Your task to perform on an android device: Go to notification settings Image 0: 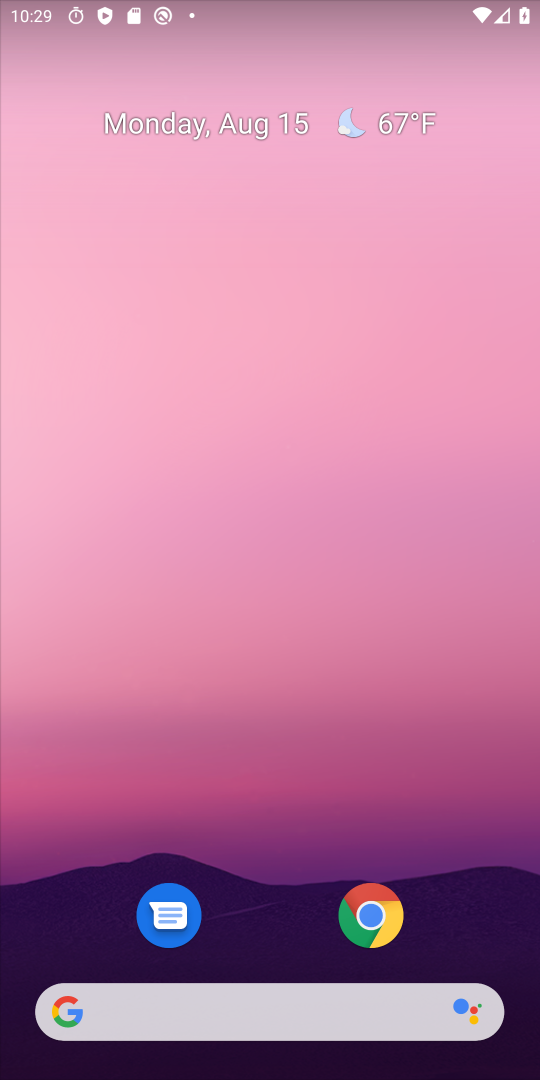
Step 0: drag from (489, 928) to (309, 155)
Your task to perform on an android device: Go to notification settings Image 1: 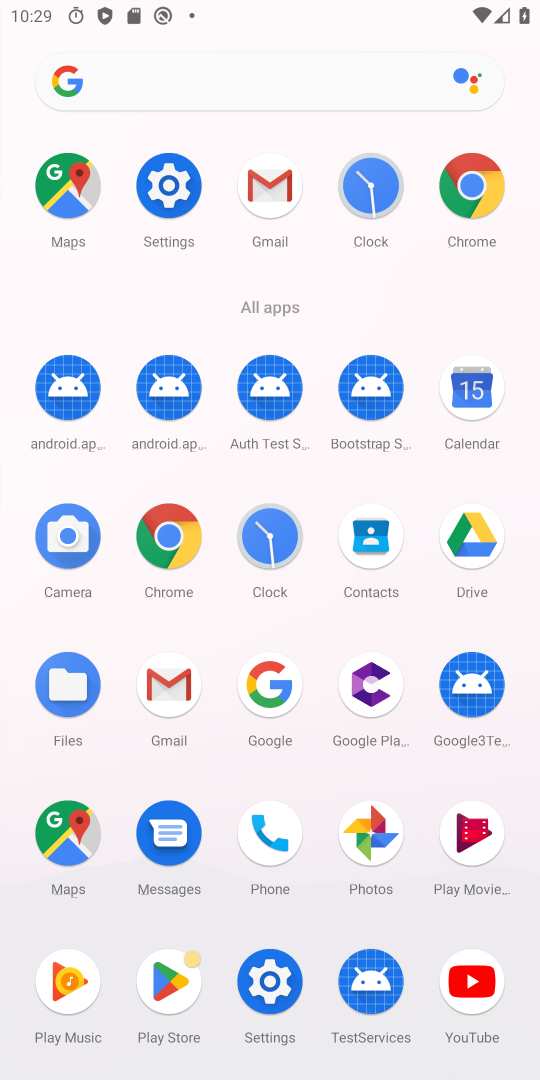
Step 1: click (182, 179)
Your task to perform on an android device: Go to notification settings Image 2: 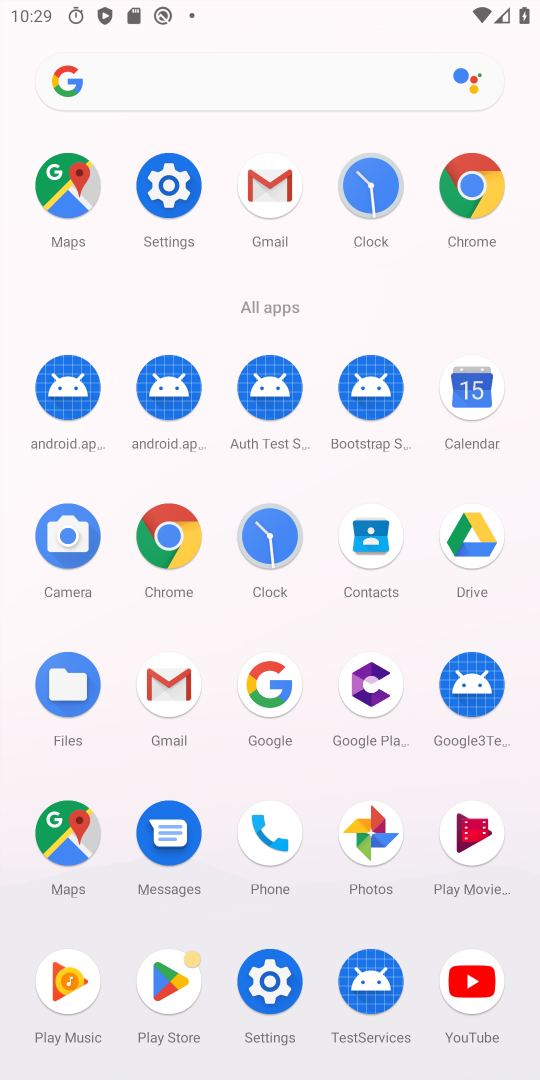
Step 2: click (182, 179)
Your task to perform on an android device: Go to notification settings Image 3: 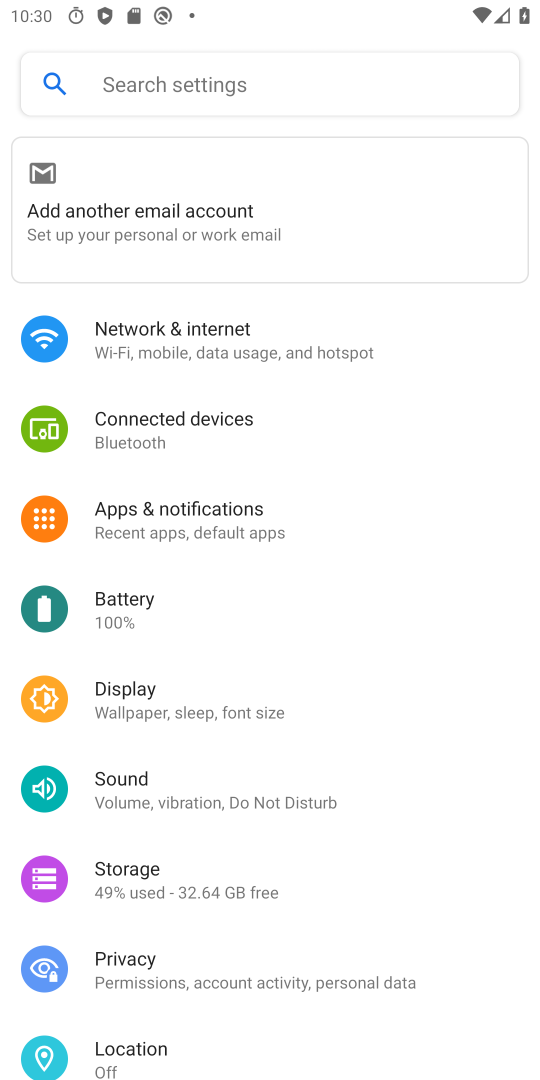
Step 3: click (218, 529)
Your task to perform on an android device: Go to notification settings Image 4: 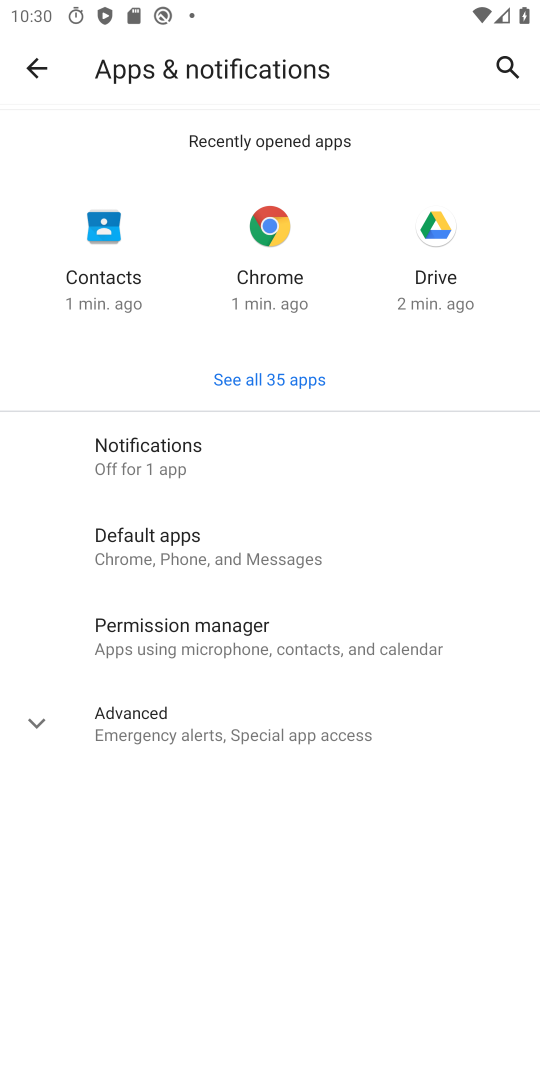
Step 4: drag from (218, 529) to (523, 438)
Your task to perform on an android device: Go to notification settings Image 5: 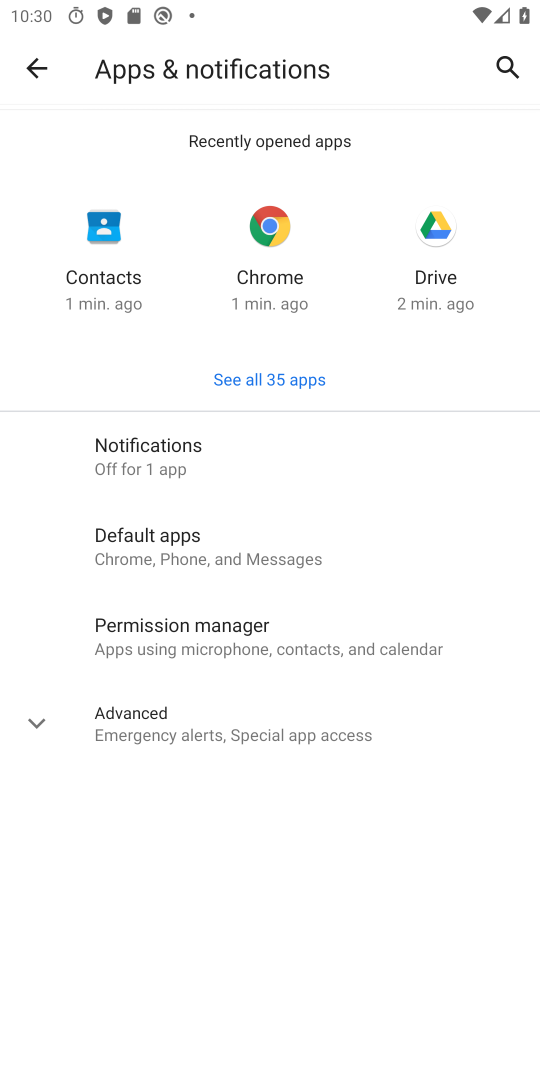
Step 5: click (236, 453)
Your task to perform on an android device: Go to notification settings Image 6: 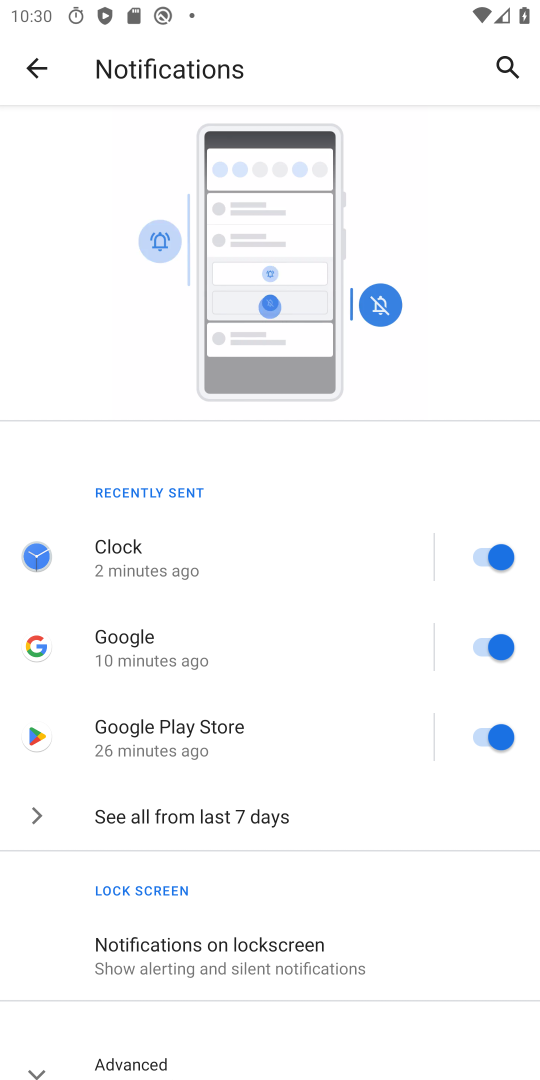
Step 6: task complete